Your task to perform on an android device: Open privacy settings Image 0: 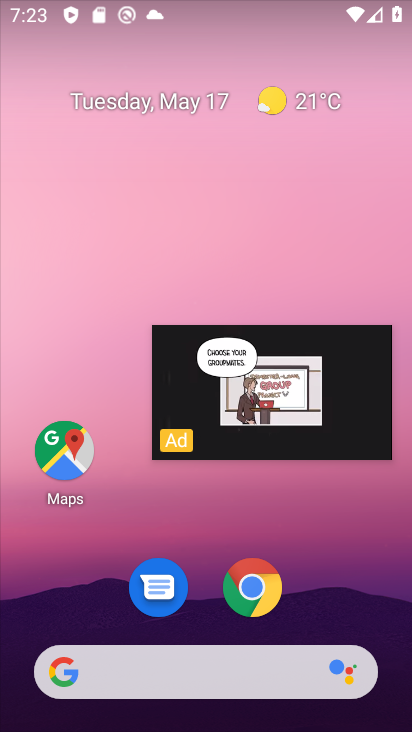
Step 0: drag from (357, 516) to (379, 101)
Your task to perform on an android device: Open privacy settings Image 1: 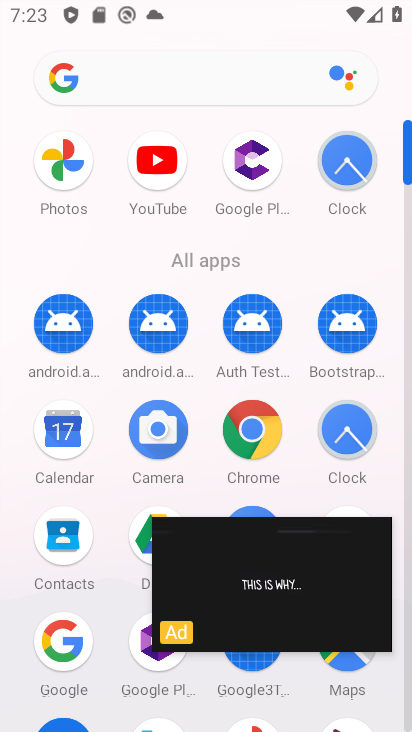
Step 1: drag from (109, 470) to (113, 183)
Your task to perform on an android device: Open privacy settings Image 2: 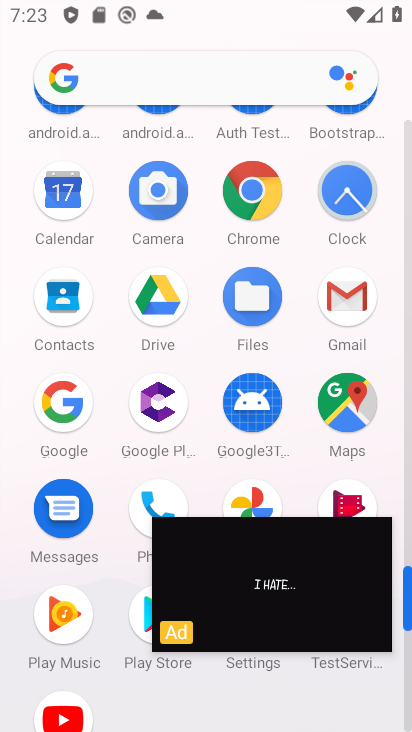
Step 2: drag from (400, 247) to (395, 366)
Your task to perform on an android device: Open privacy settings Image 3: 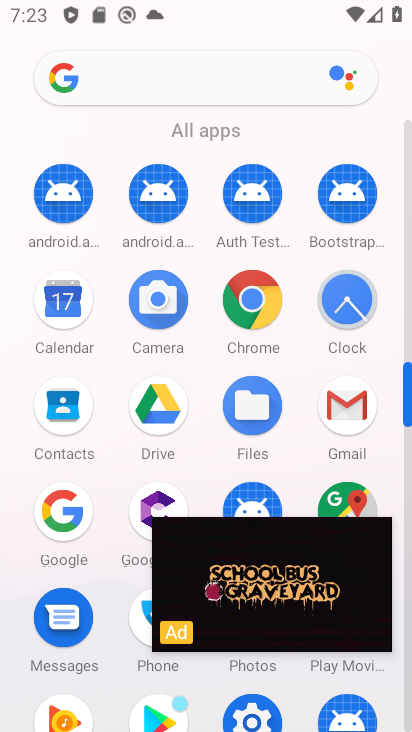
Step 3: click (248, 711)
Your task to perform on an android device: Open privacy settings Image 4: 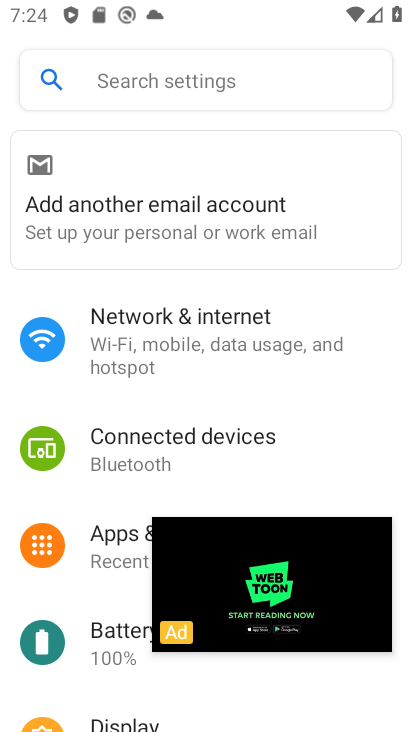
Step 4: drag from (378, 443) to (378, 282)
Your task to perform on an android device: Open privacy settings Image 5: 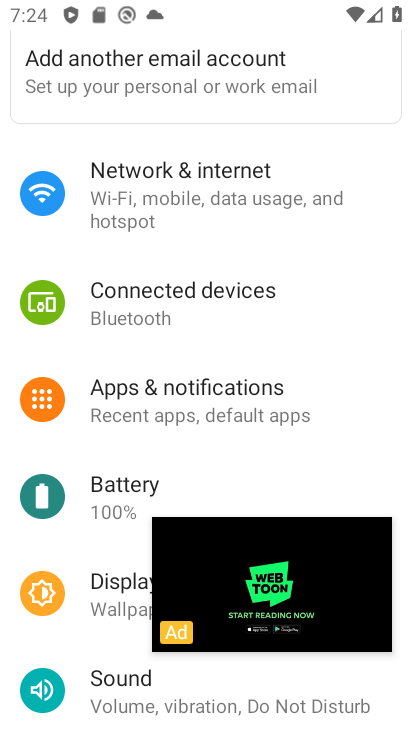
Step 5: drag from (375, 420) to (373, 282)
Your task to perform on an android device: Open privacy settings Image 6: 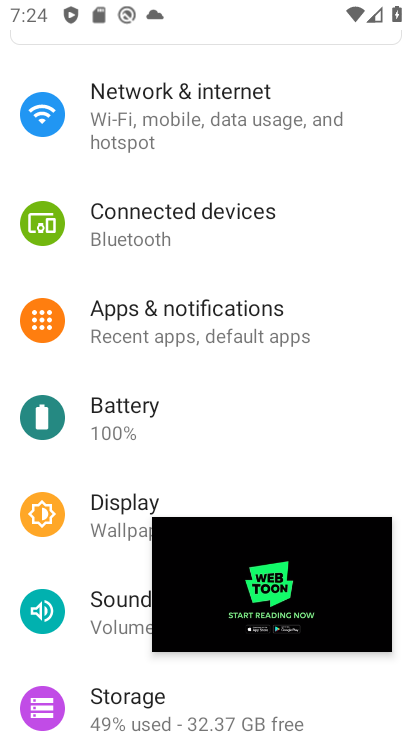
Step 6: drag from (362, 424) to (369, 280)
Your task to perform on an android device: Open privacy settings Image 7: 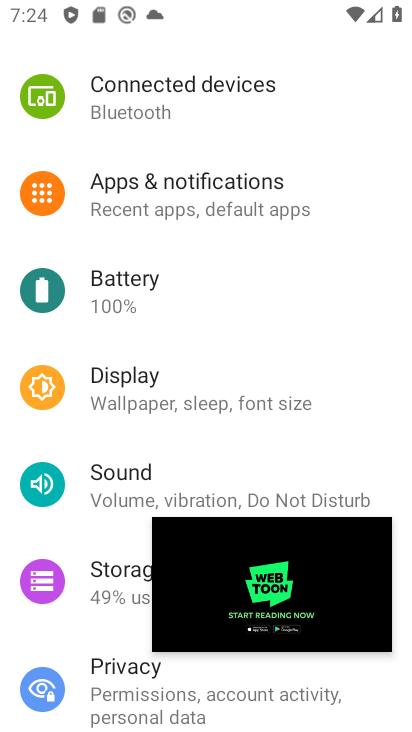
Step 7: drag from (362, 434) to (364, 286)
Your task to perform on an android device: Open privacy settings Image 8: 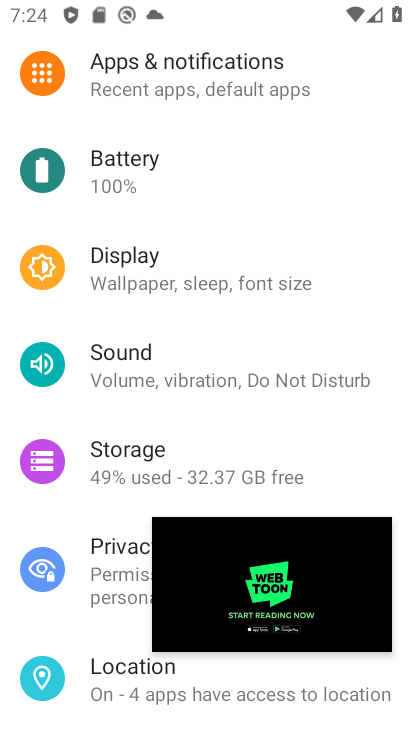
Step 8: drag from (366, 453) to (364, 270)
Your task to perform on an android device: Open privacy settings Image 9: 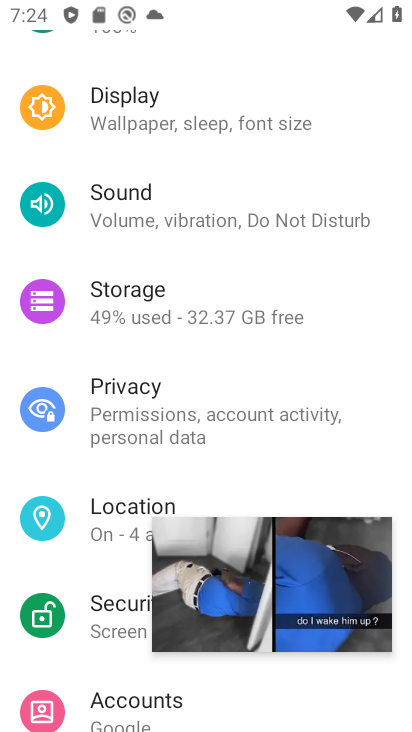
Step 9: drag from (359, 447) to (366, 291)
Your task to perform on an android device: Open privacy settings Image 10: 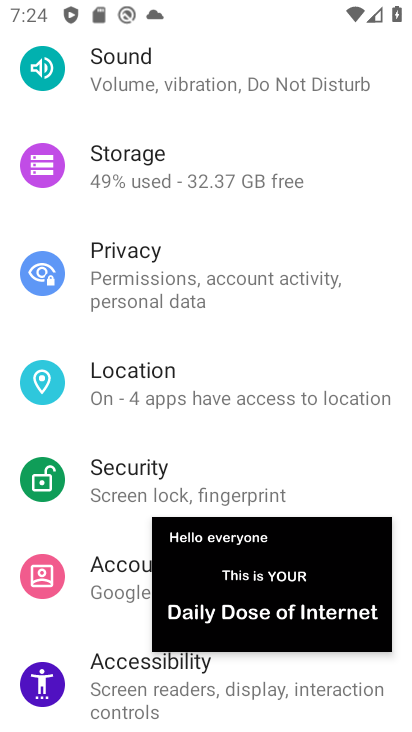
Step 10: click (222, 286)
Your task to perform on an android device: Open privacy settings Image 11: 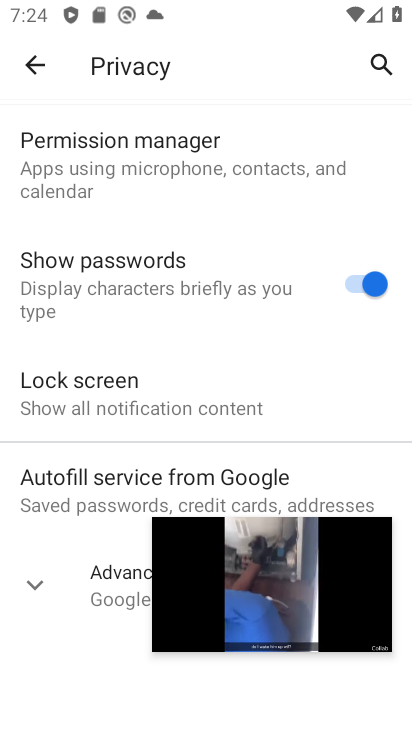
Step 11: task complete